Your task to perform on an android device: Open Yahoo.com Image 0: 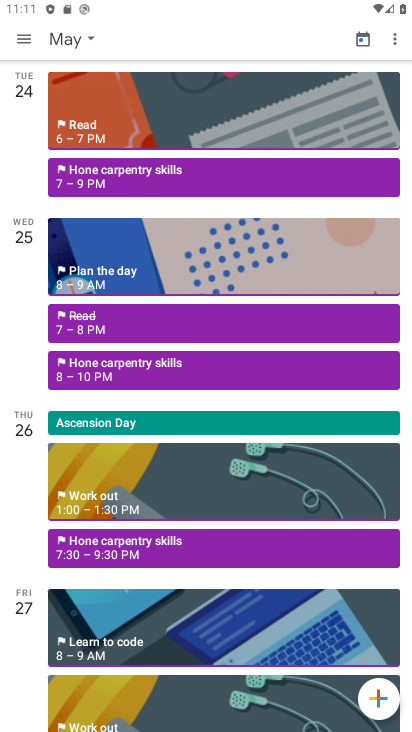
Step 0: press home button
Your task to perform on an android device: Open Yahoo.com Image 1: 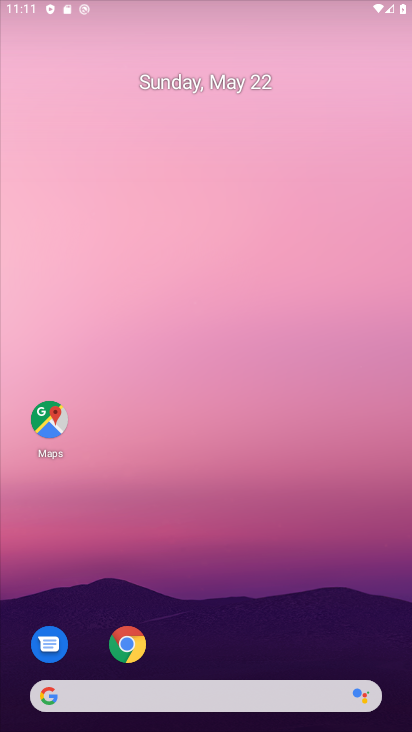
Step 1: drag from (388, 637) to (229, 66)
Your task to perform on an android device: Open Yahoo.com Image 2: 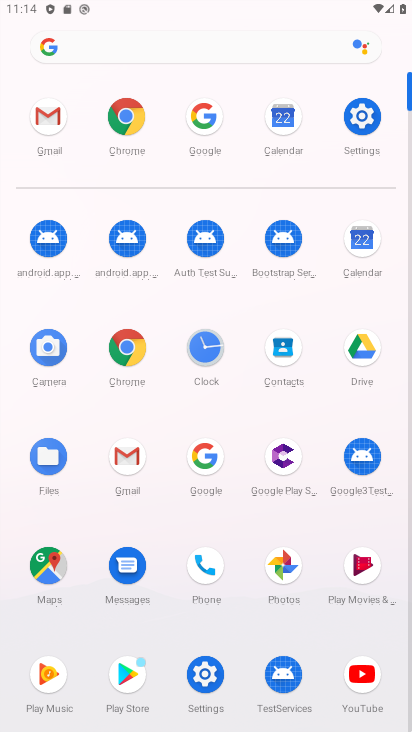
Step 2: click (121, 345)
Your task to perform on an android device: Open Yahoo.com Image 3: 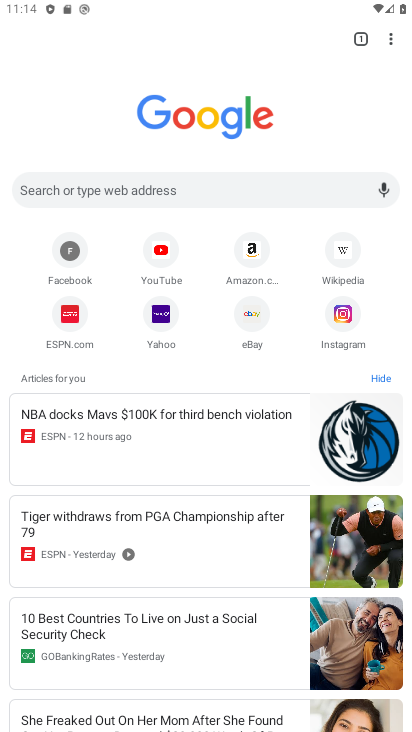
Step 3: click (153, 325)
Your task to perform on an android device: Open Yahoo.com Image 4: 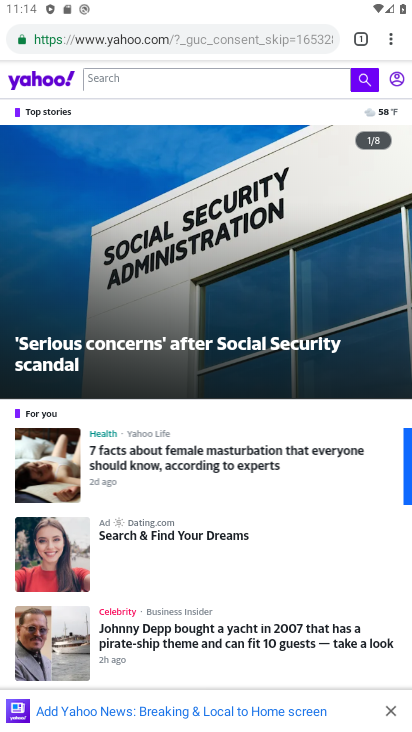
Step 4: task complete